Your task to perform on an android device: turn off notifications in google photos Image 0: 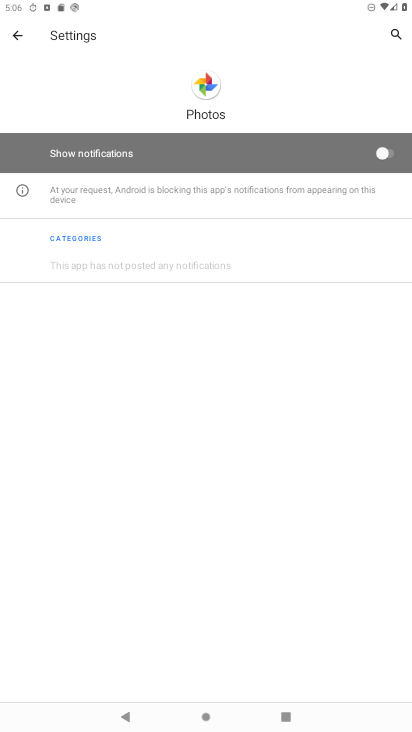
Step 0: press home button
Your task to perform on an android device: turn off notifications in google photos Image 1: 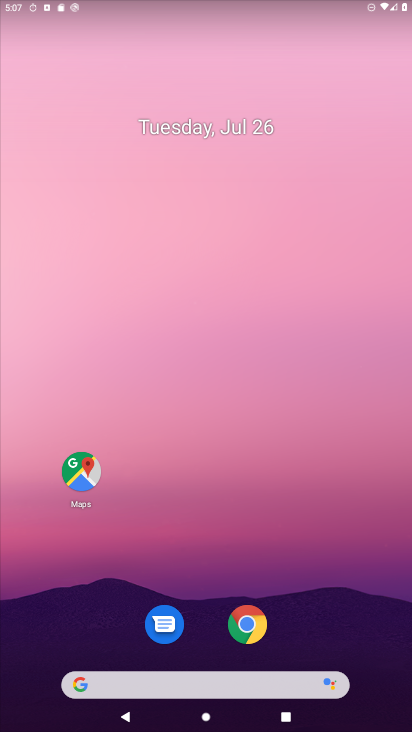
Step 1: drag from (286, 684) to (295, 561)
Your task to perform on an android device: turn off notifications in google photos Image 2: 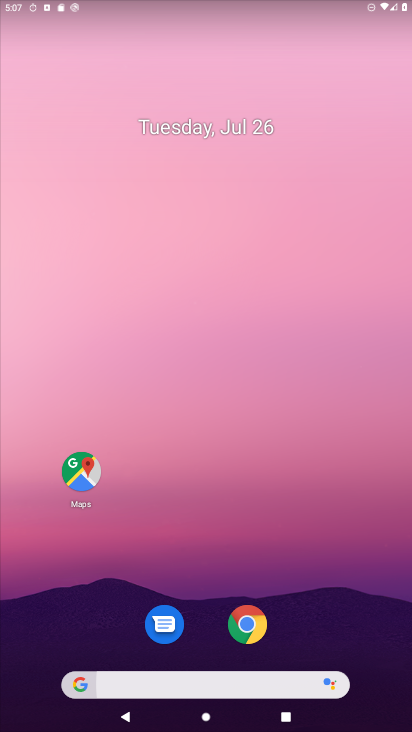
Step 2: drag from (367, 152) to (361, 49)
Your task to perform on an android device: turn off notifications in google photos Image 3: 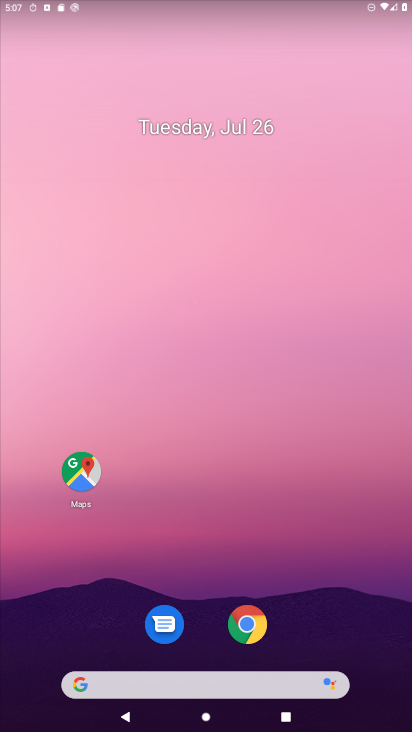
Step 3: drag from (259, 679) to (379, 42)
Your task to perform on an android device: turn off notifications in google photos Image 4: 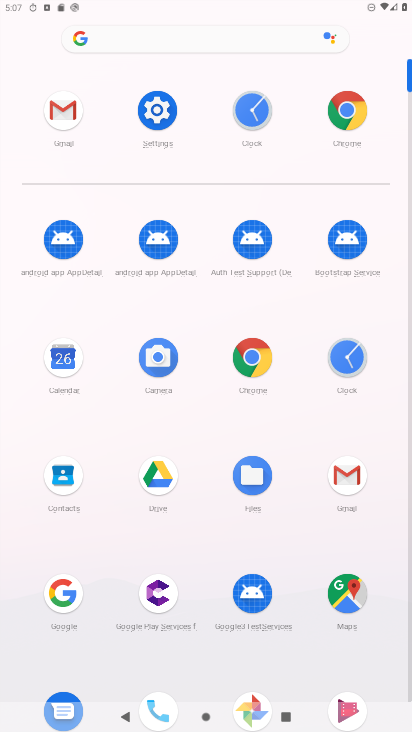
Step 4: drag from (204, 651) to (198, 294)
Your task to perform on an android device: turn off notifications in google photos Image 5: 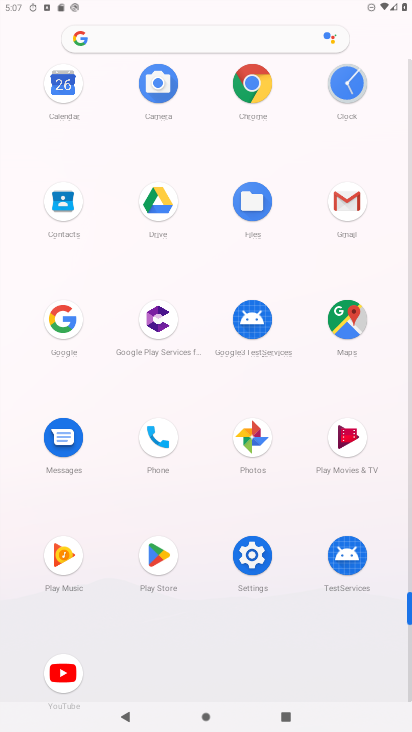
Step 5: click (255, 444)
Your task to perform on an android device: turn off notifications in google photos Image 6: 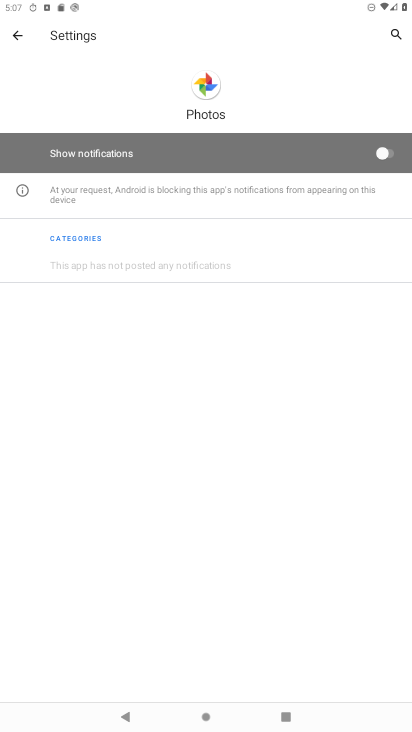
Step 6: task complete